Your task to perform on an android device: Open the calendar and show me this week's events? Image 0: 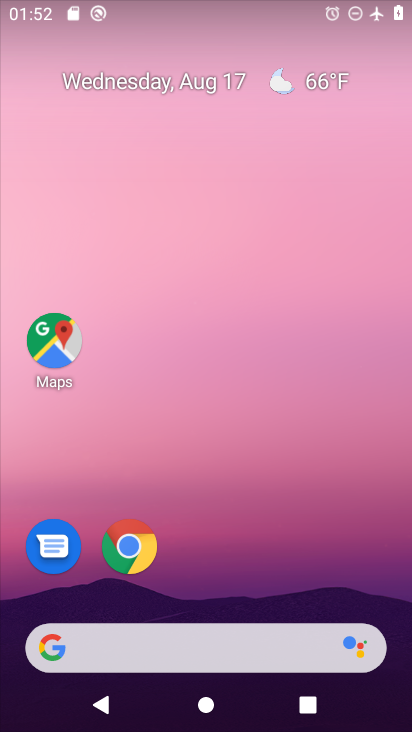
Step 0: drag from (237, 547) to (229, 211)
Your task to perform on an android device: Open the calendar and show me this week's events? Image 1: 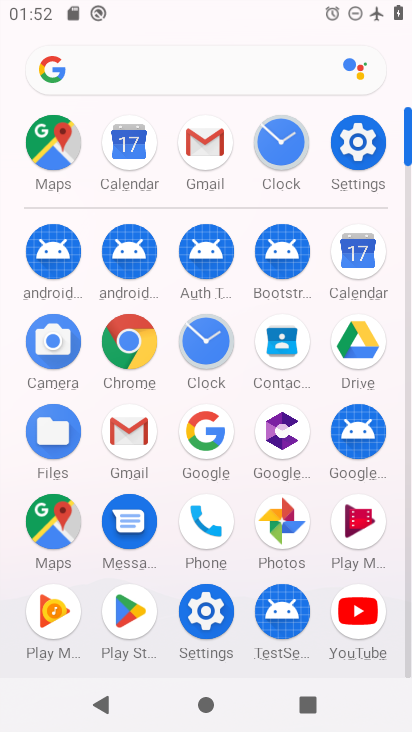
Step 1: click (364, 257)
Your task to perform on an android device: Open the calendar and show me this week's events? Image 2: 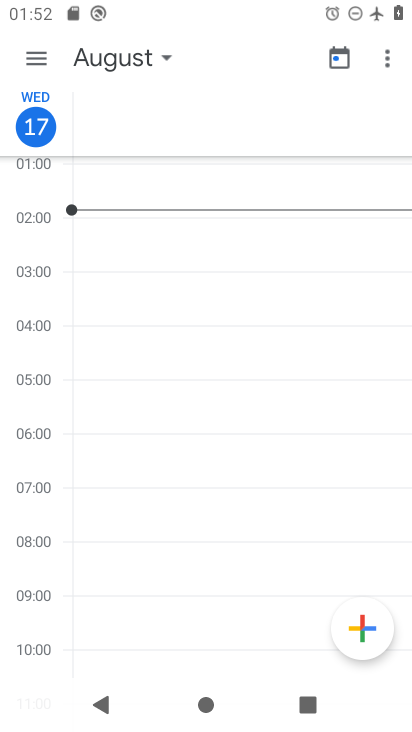
Step 2: click (35, 57)
Your task to perform on an android device: Open the calendar and show me this week's events? Image 3: 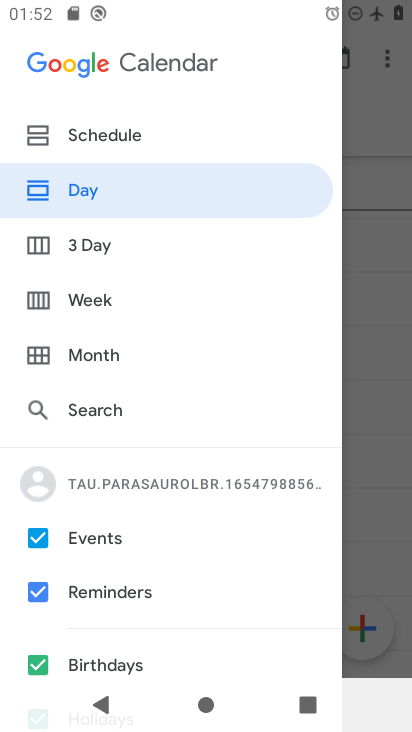
Step 3: click (88, 291)
Your task to perform on an android device: Open the calendar and show me this week's events? Image 4: 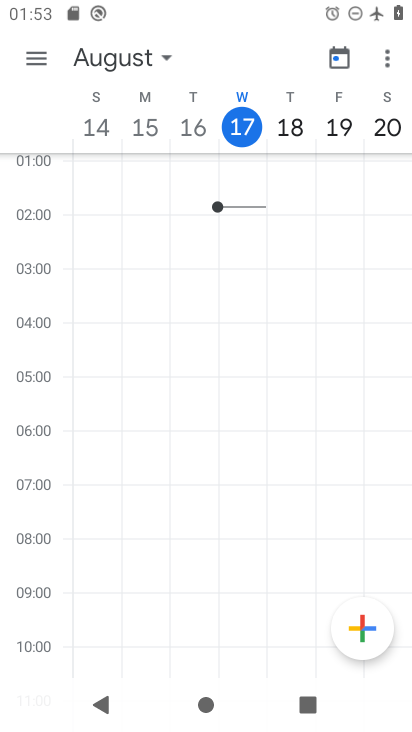
Step 4: task complete